Your task to perform on an android device: Set the phone to "Do not disturb". Image 0: 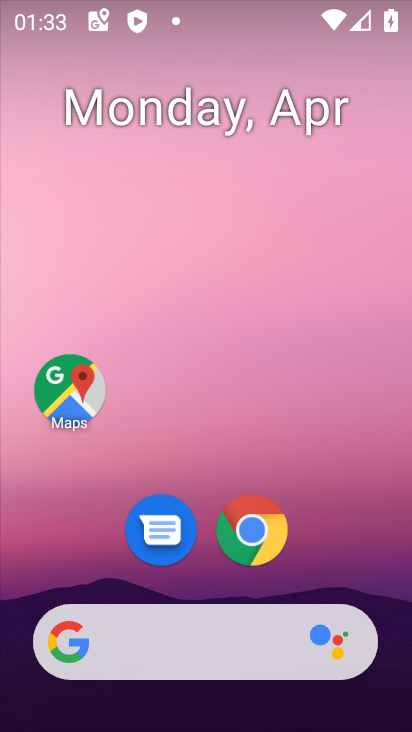
Step 0: drag from (325, 555) to (279, 38)
Your task to perform on an android device: Set the phone to "Do not disturb". Image 1: 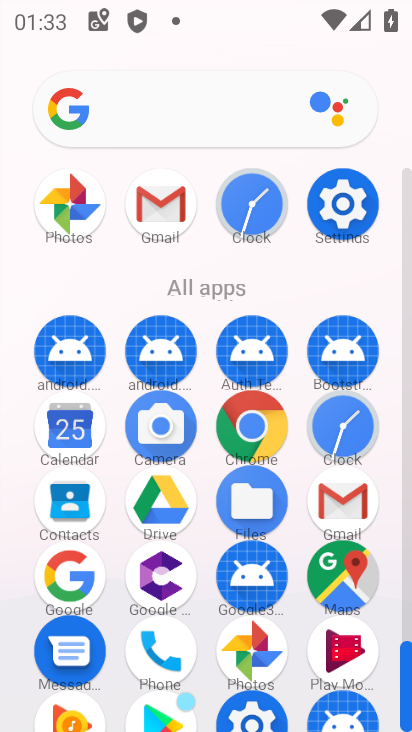
Step 1: click (351, 209)
Your task to perform on an android device: Set the phone to "Do not disturb". Image 2: 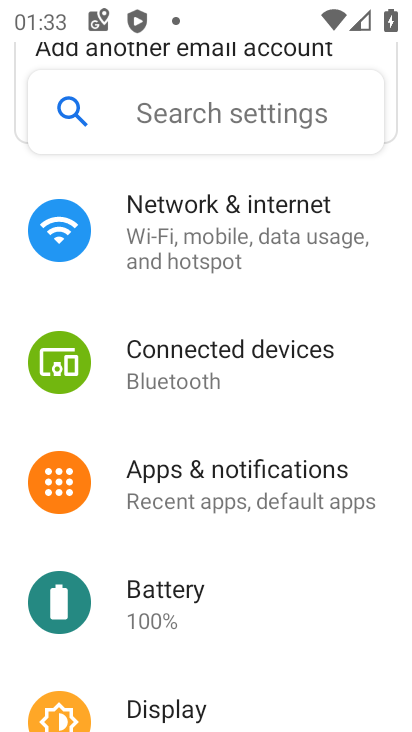
Step 2: drag from (235, 544) to (213, 203)
Your task to perform on an android device: Set the phone to "Do not disturb". Image 3: 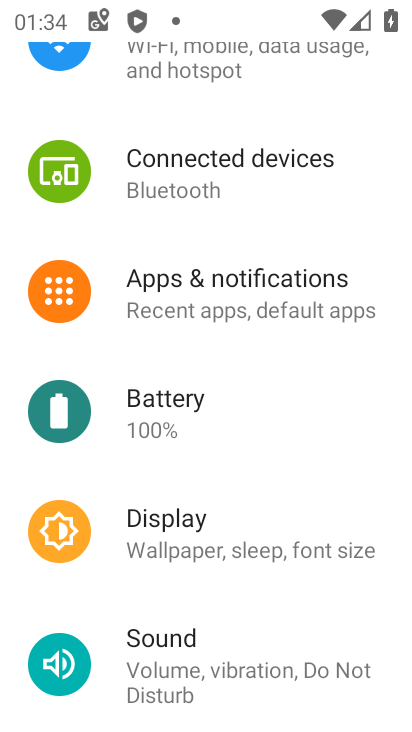
Step 3: click (175, 659)
Your task to perform on an android device: Set the phone to "Do not disturb". Image 4: 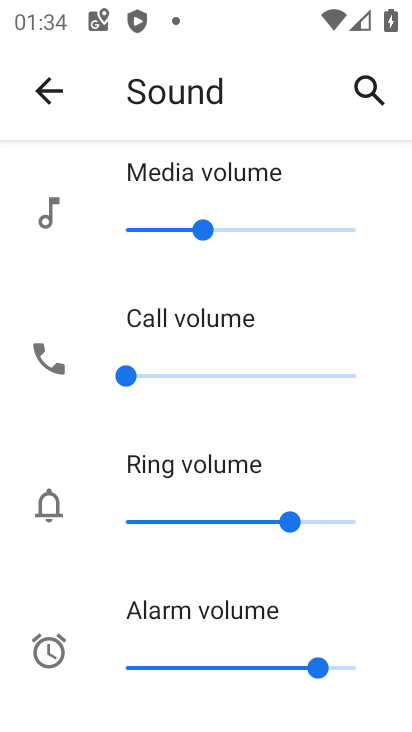
Step 4: drag from (268, 575) to (255, 181)
Your task to perform on an android device: Set the phone to "Do not disturb". Image 5: 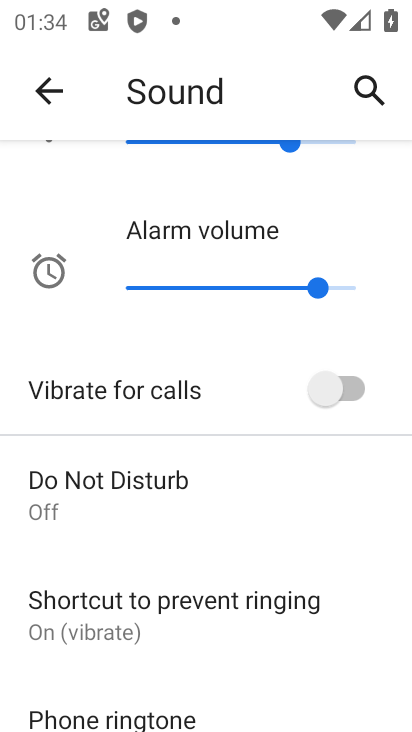
Step 5: click (77, 484)
Your task to perform on an android device: Set the phone to "Do not disturb". Image 6: 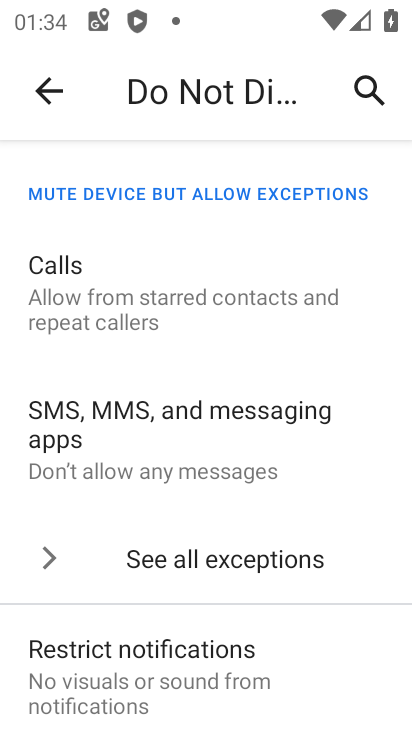
Step 6: drag from (159, 532) to (152, 83)
Your task to perform on an android device: Set the phone to "Do not disturb". Image 7: 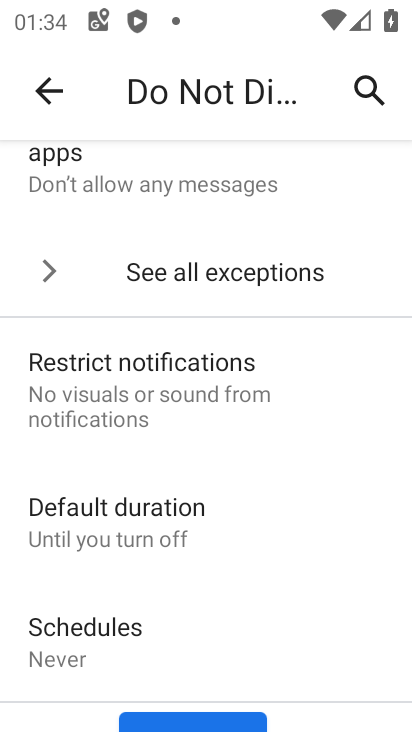
Step 7: drag from (225, 607) to (199, 247)
Your task to perform on an android device: Set the phone to "Do not disturb". Image 8: 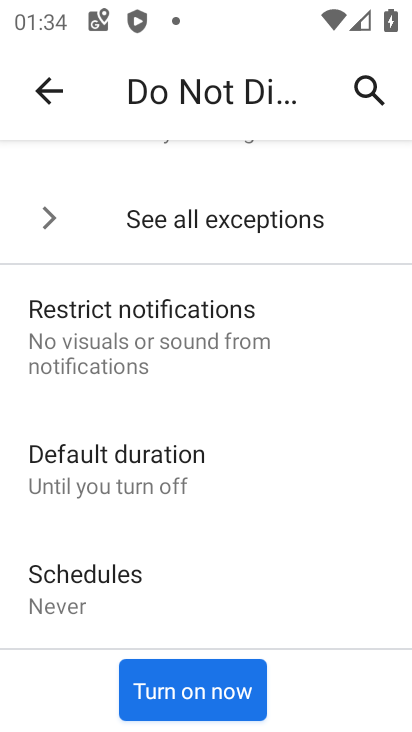
Step 8: click (212, 693)
Your task to perform on an android device: Set the phone to "Do not disturb". Image 9: 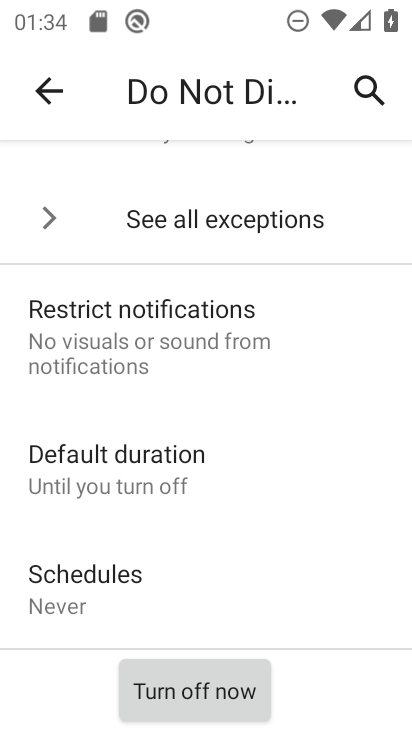
Step 9: task complete